Your task to perform on an android device: Clear the cart on newegg. Add rayovac triple a to the cart on newegg Image 0: 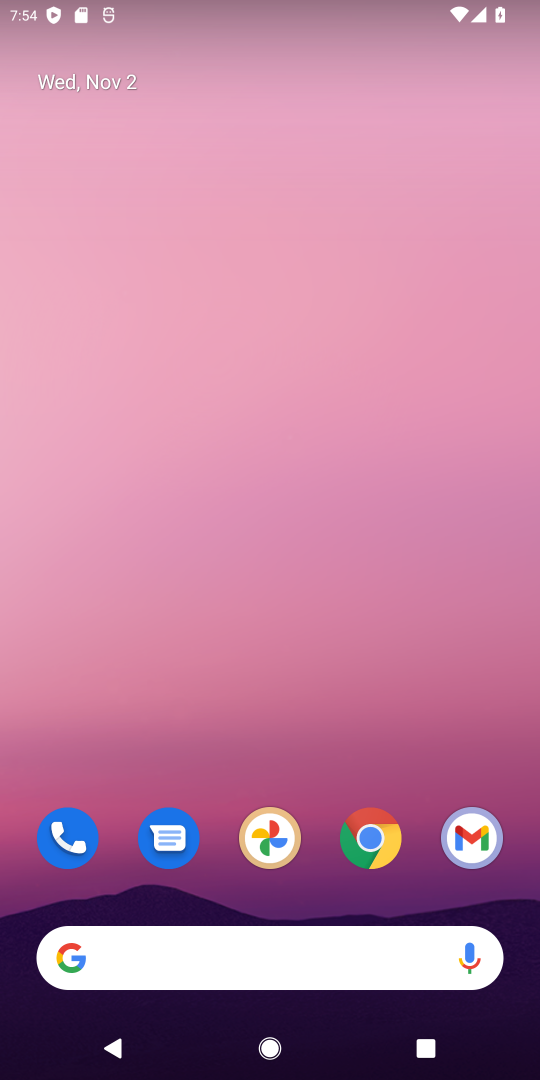
Step 0: click (387, 847)
Your task to perform on an android device: Clear the cart on newegg. Add rayovac triple a to the cart on newegg Image 1: 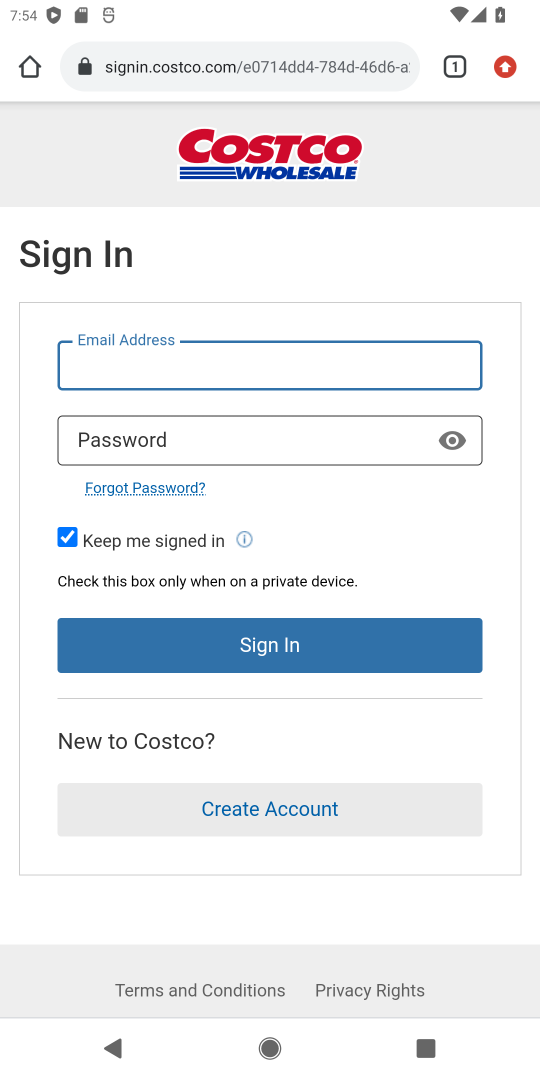
Step 1: click (300, 73)
Your task to perform on an android device: Clear the cart on newegg. Add rayovac triple a to the cart on newegg Image 2: 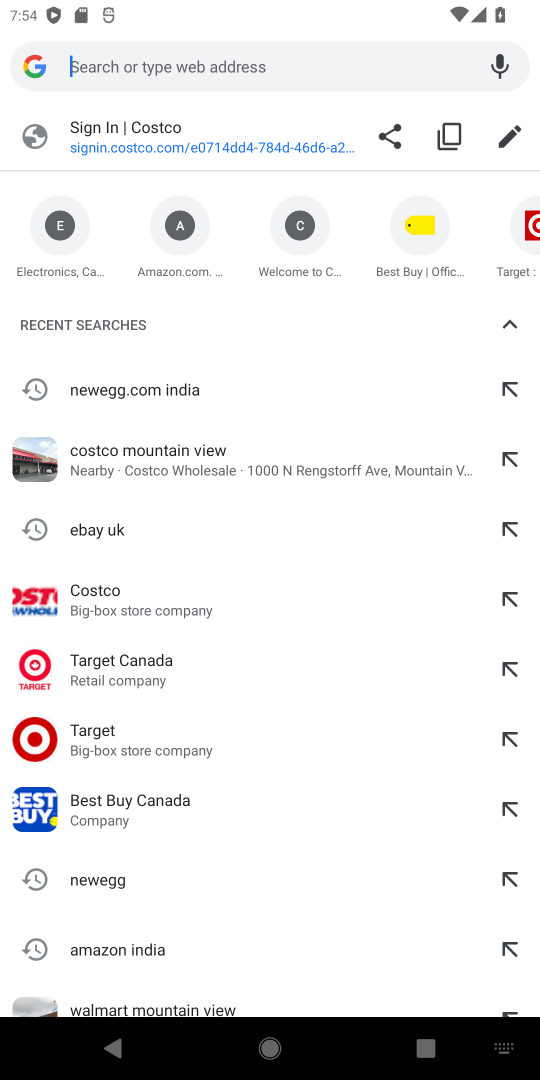
Step 2: type "newegg"
Your task to perform on an android device: Clear the cart on newegg. Add rayovac triple a to the cart on newegg Image 3: 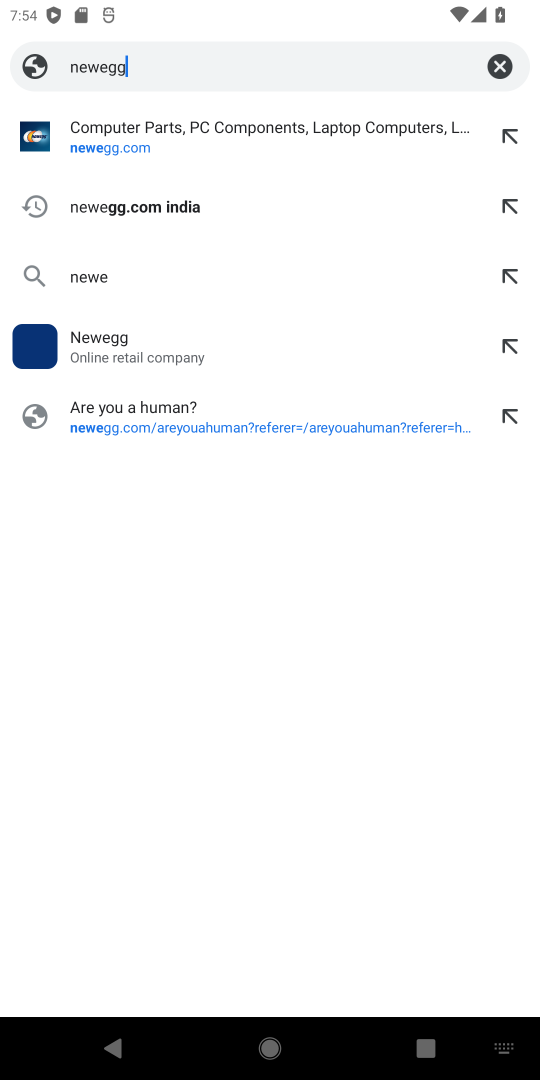
Step 3: type ""
Your task to perform on an android device: Clear the cart on newegg. Add rayovac triple a to the cart on newegg Image 4: 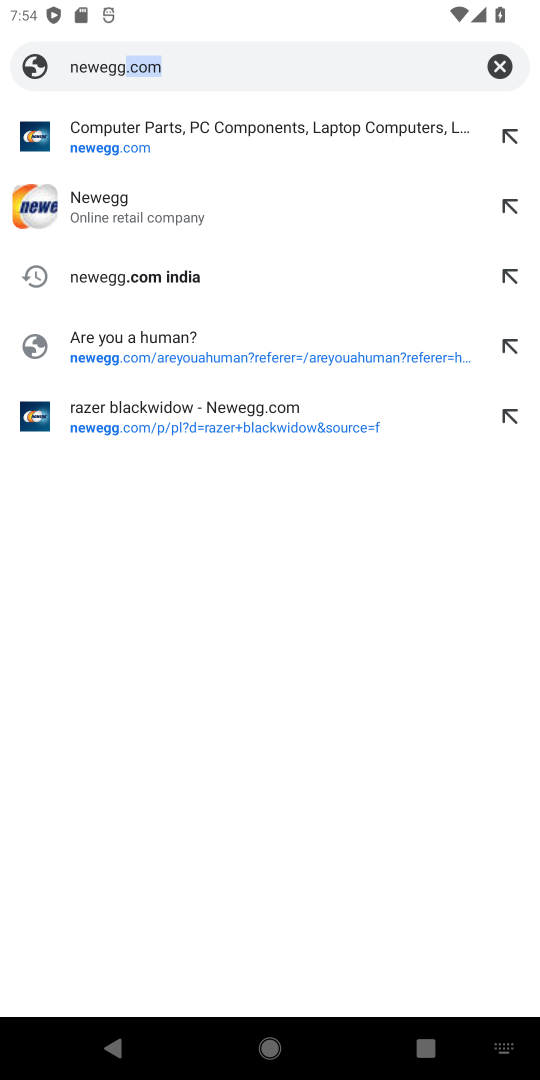
Step 4: press enter
Your task to perform on an android device: Clear the cart on newegg. Add rayovac triple a to the cart on newegg Image 5: 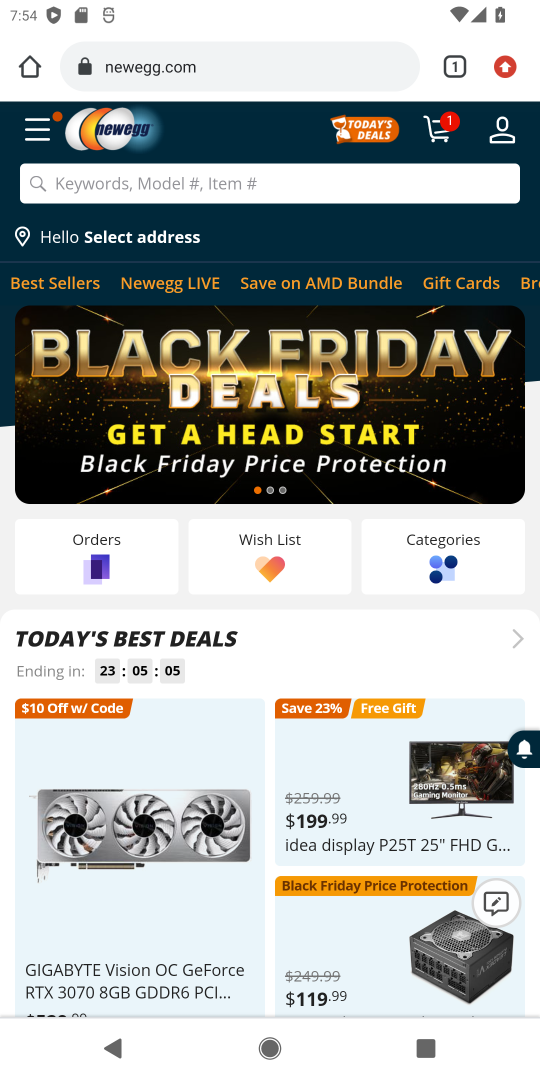
Step 5: click (459, 136)
Your task to perform on an android device: Clear the cart on newegg. Add rayovac triple a to the cart on newegg Image 6: 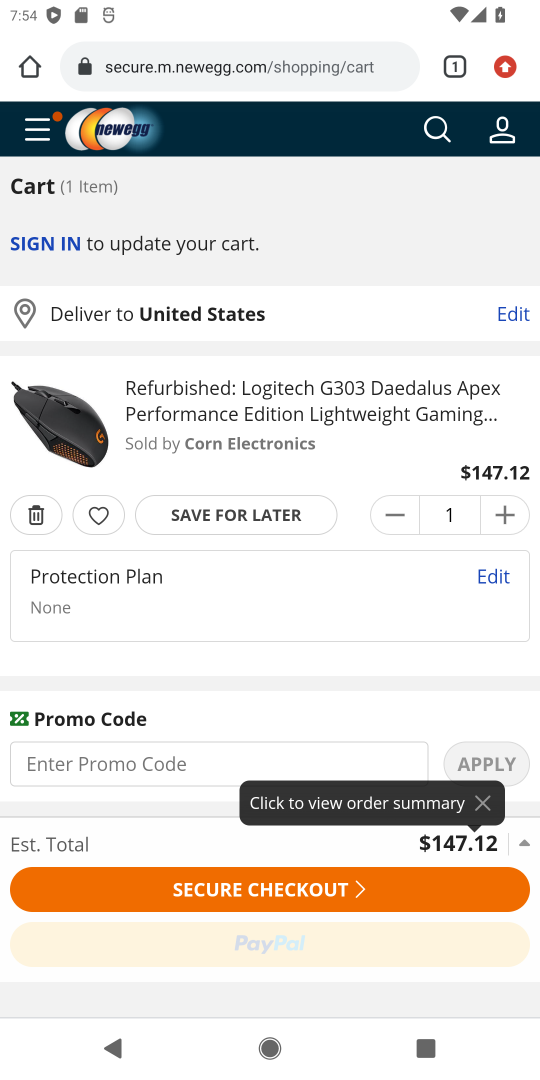
Step 6: click (39, 526)
Your task to perform on an android device: Clear the cart on newegg. Add rayovac triple a to the cart on newegg Image 7: 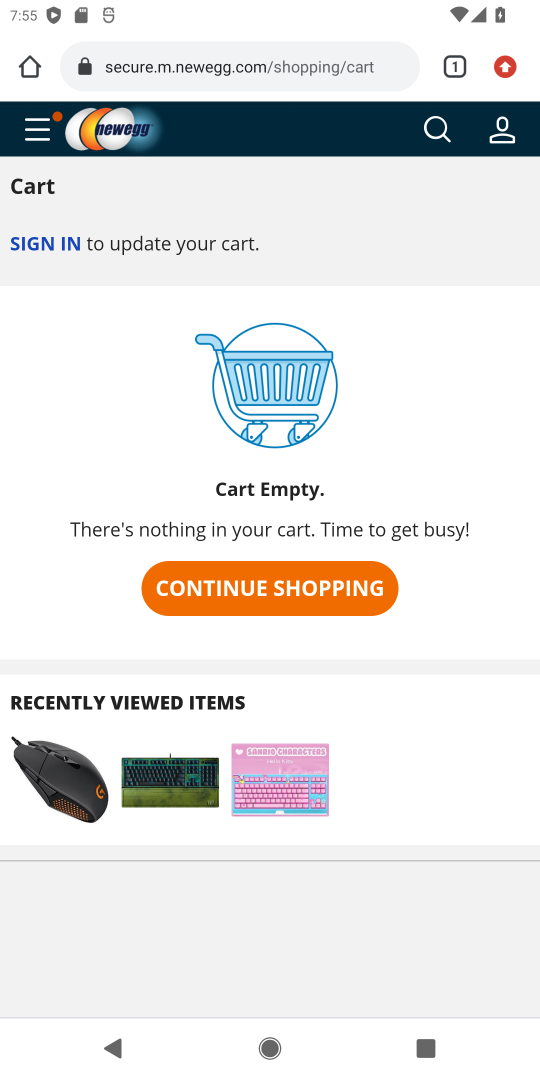
Step 7: click (276, 604)
Your task to perform on an android device: Clear the cart on newegg. Add rayovac triple a to the cart on newegg Image 8: 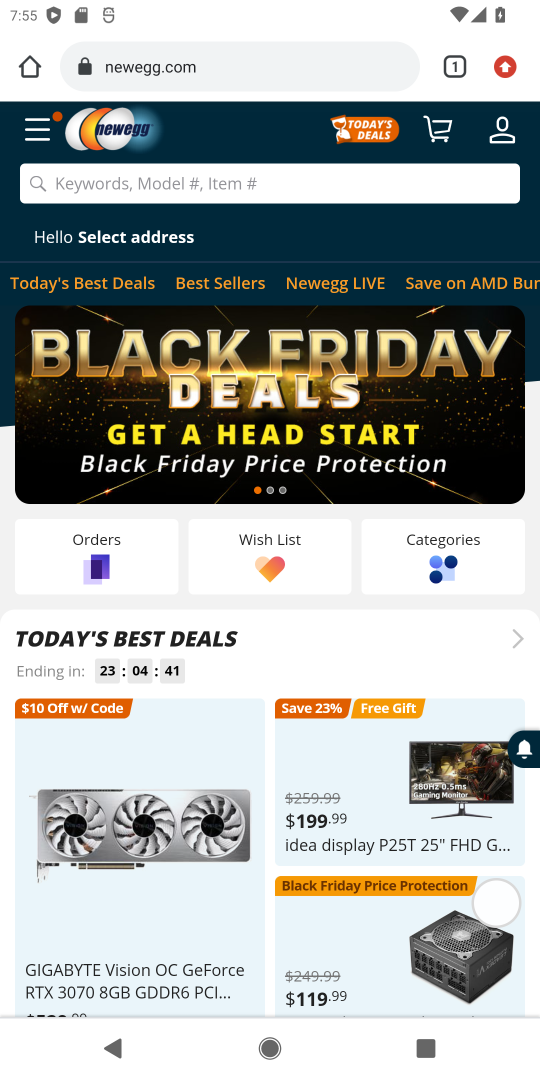
Step 8: click (237, 170)
Your task to perform on an android device: Clear the cart on newegg. Add rayovac triple a to the cart on newegg Image 9: 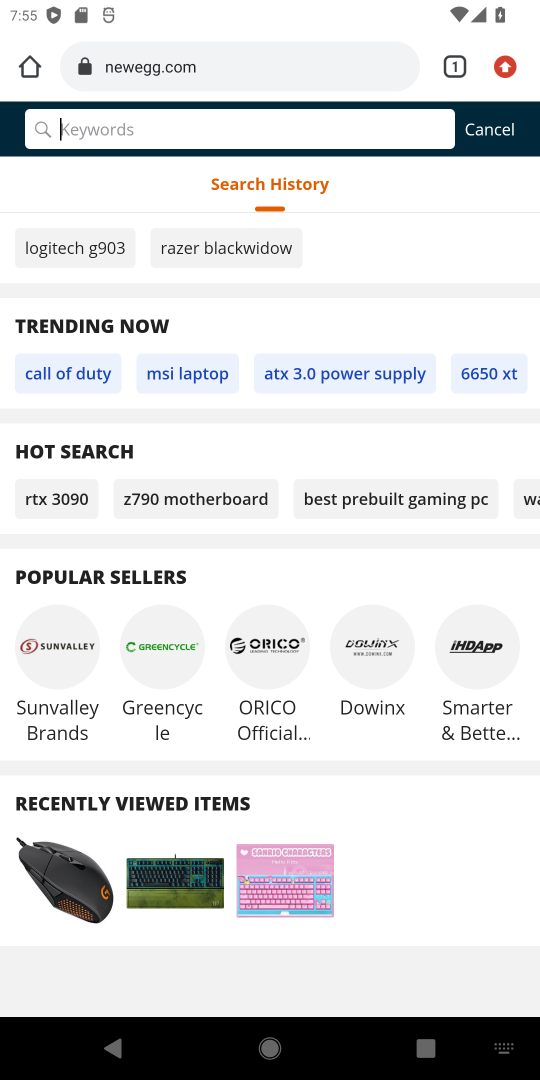
Step 9: type "rayovac triple a"
Your task to perform on an android device: Clear the cart on newegg. Add rayovac triple a to the cart on newegg Image 10: 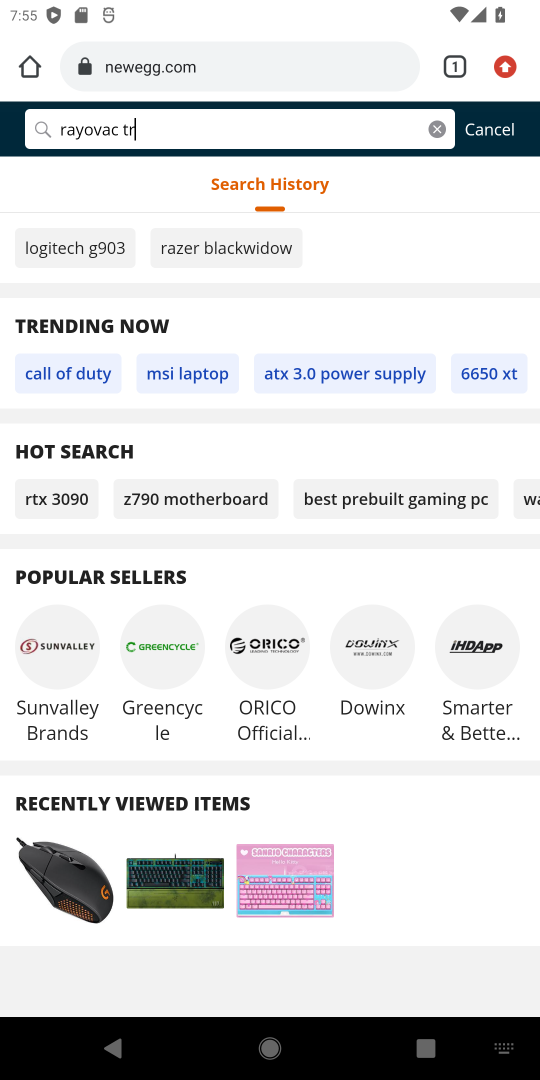
Step 10: type ""
Your task to perform on an android device: Clear the cart on newegg. Add rayovac triple a to the cart on newegg Image 11: 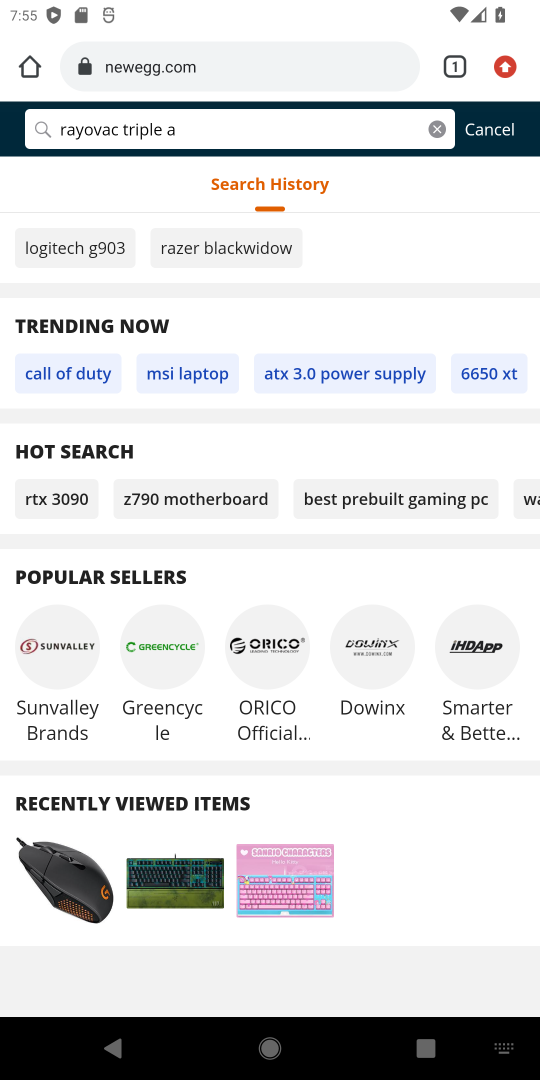
Step 11: press enter
Your task to perform on an android device: Clear the cart on newegg. Add rayovac triple a to the cart on newegg Image 12: 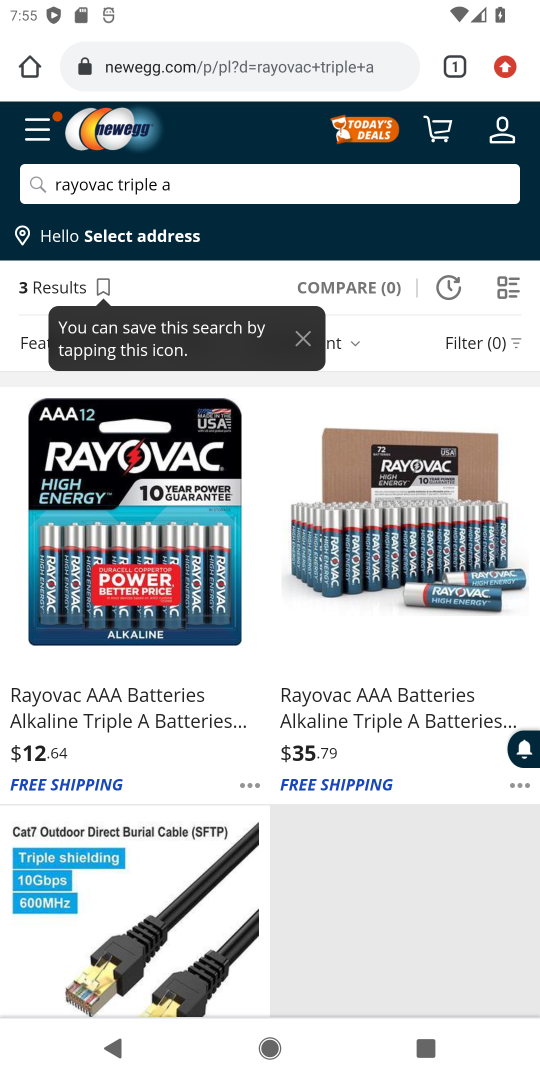
Step 12: click (170, 641)
Your task to perform on an android device: Clear the cart on newegg. Add rayovac triple a to the cart on newegg Image 13: 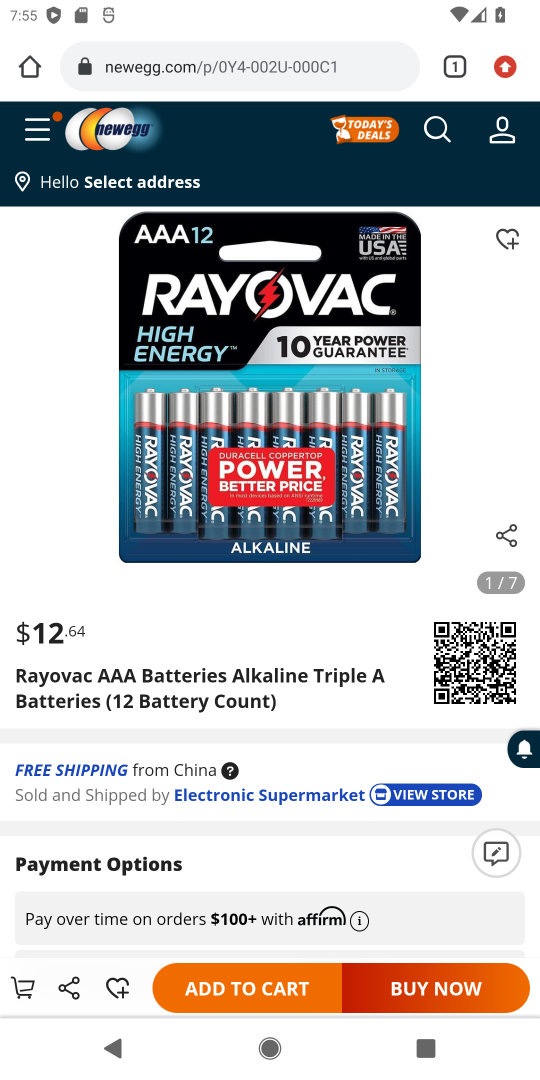
Step 13: click (292, 997)
Your task to perform on an android device: Clear the cart on newegg. Add rayovac triple a to the cart on newegg Image 14: 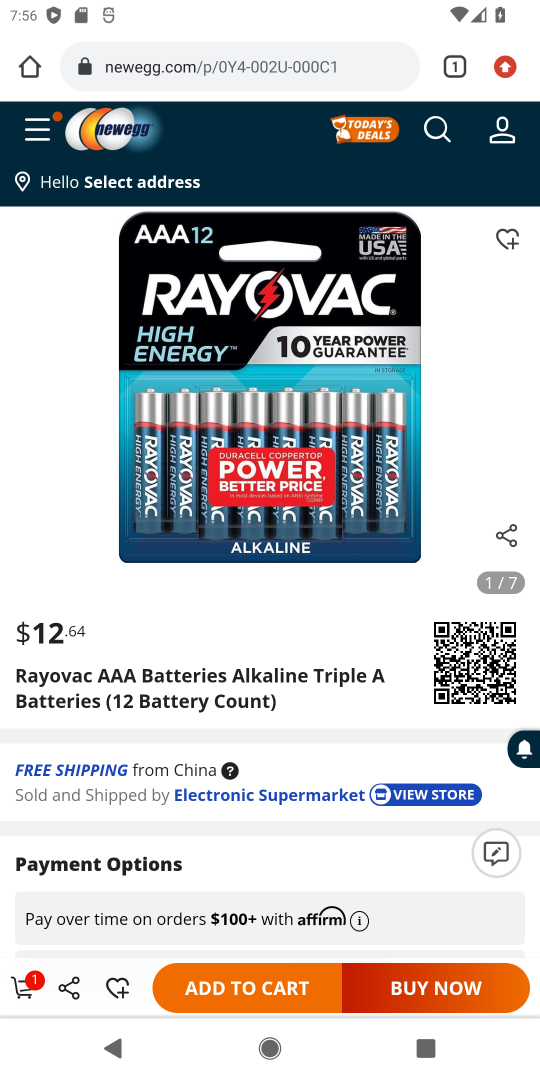
Step 14: click (30, 994)
Your task to perform on an android device: Clear the cart on newegg. Add rayovac triple a to the cart on newegg Image 15: 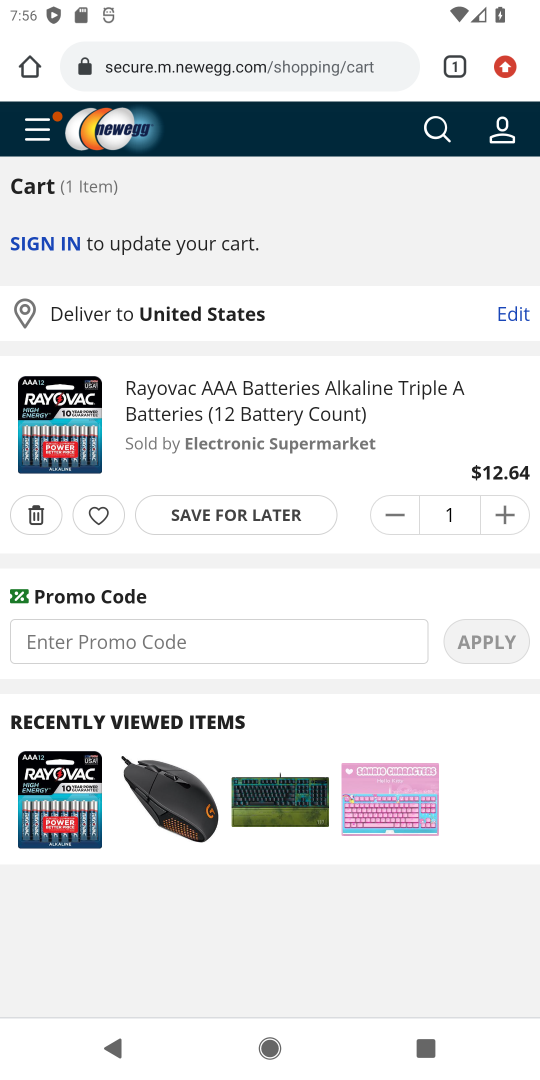
Step 15: click (290, 761)
Your task to perform on an android device: Clear the cart on newegg. Add rayovac triple a to the cart on newegg Image 16: 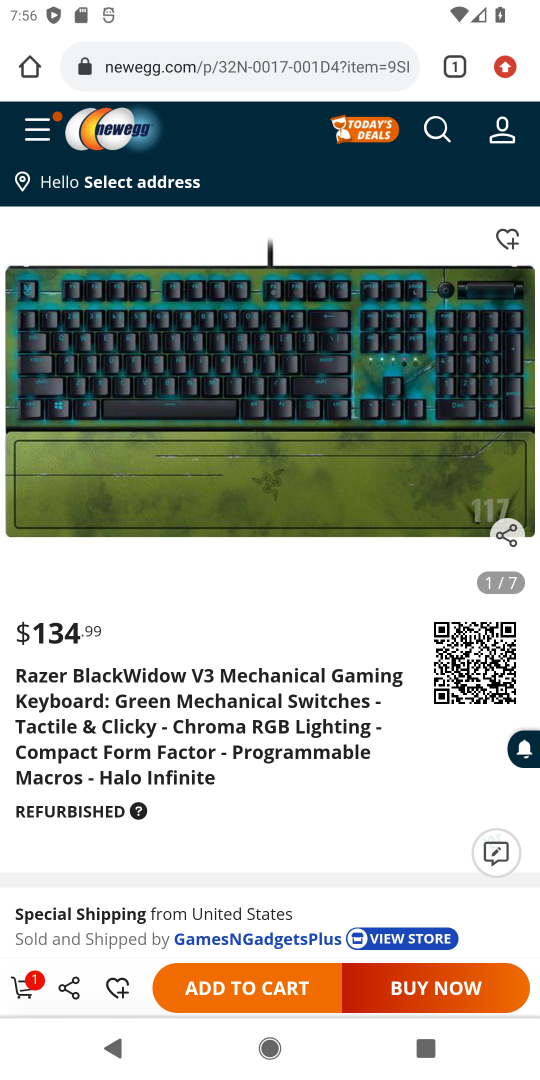
Step 16: task complete